Your task to perform on an android device: turn on location history Image 0: 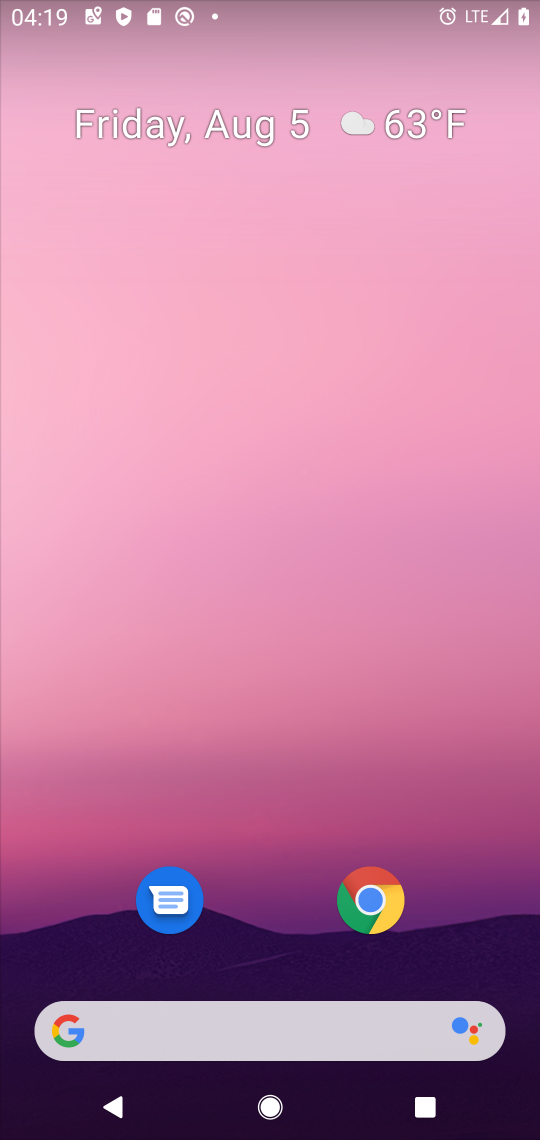
Step 0: drag from (279, 850) to (301, 2)
Your task to perform on an android device: turn on location history Image 1: 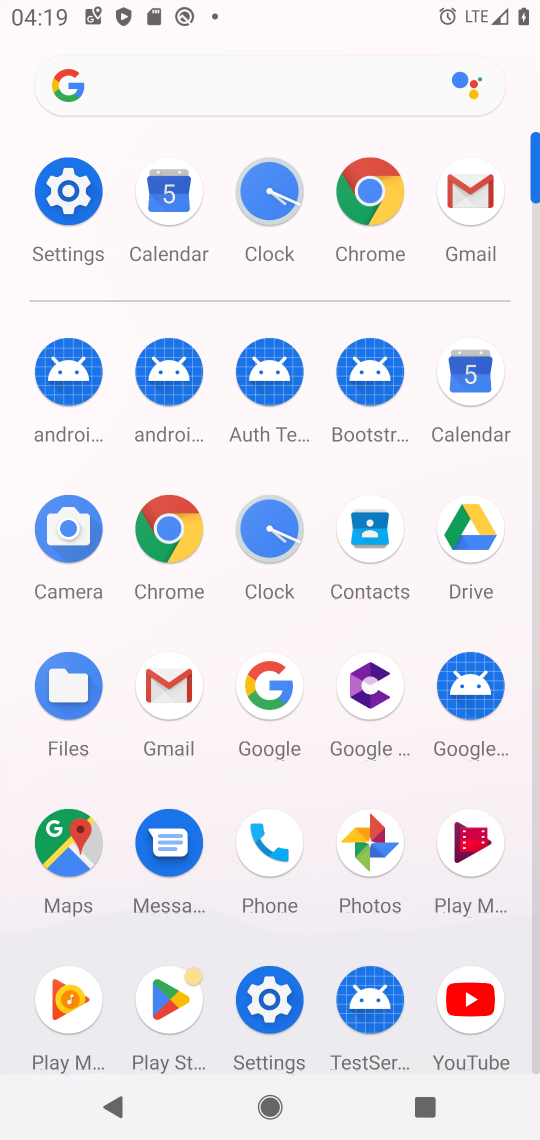
Step 1: click (74, 192)
Your task to perform on an android device: turn on location history Image 2: 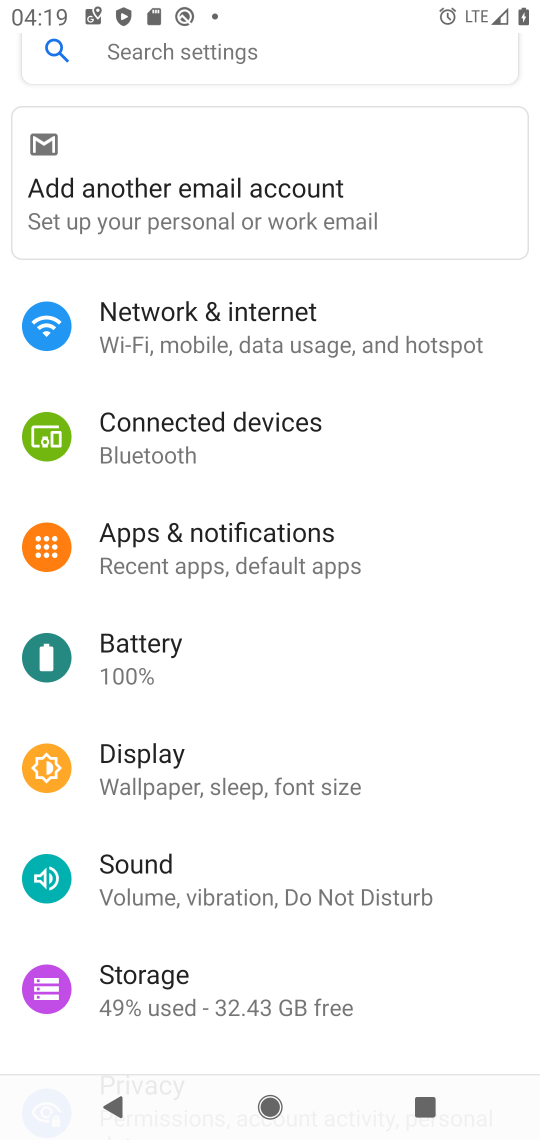
Step 2: drag from (177, 875) to (335, 114)
Your task to perform on an android device: turn on location history Image 3: 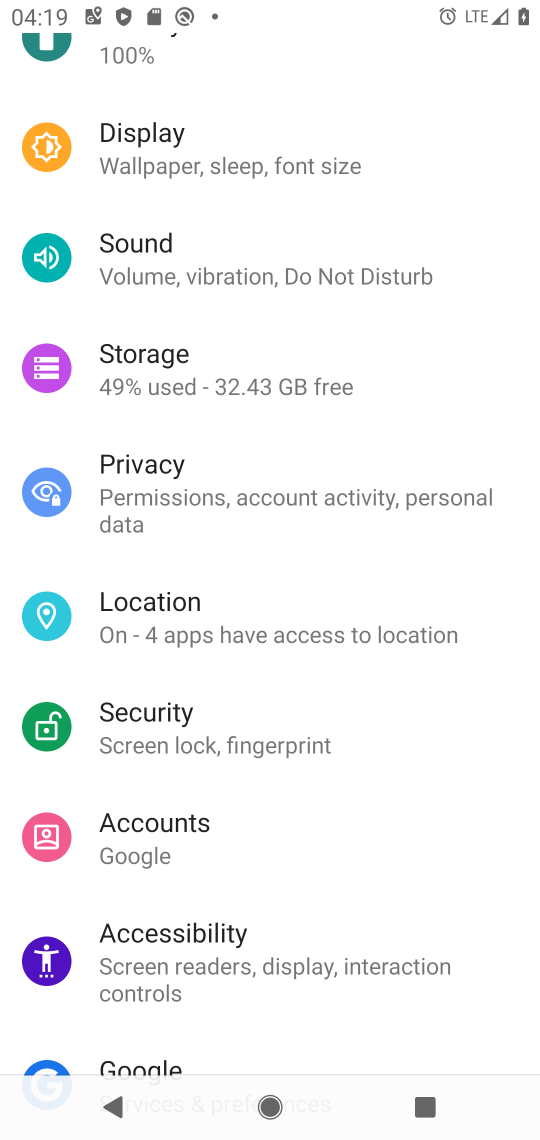
Step 3: click (146, 610)
Your task to perform on an android device: turn on location history Image 4: 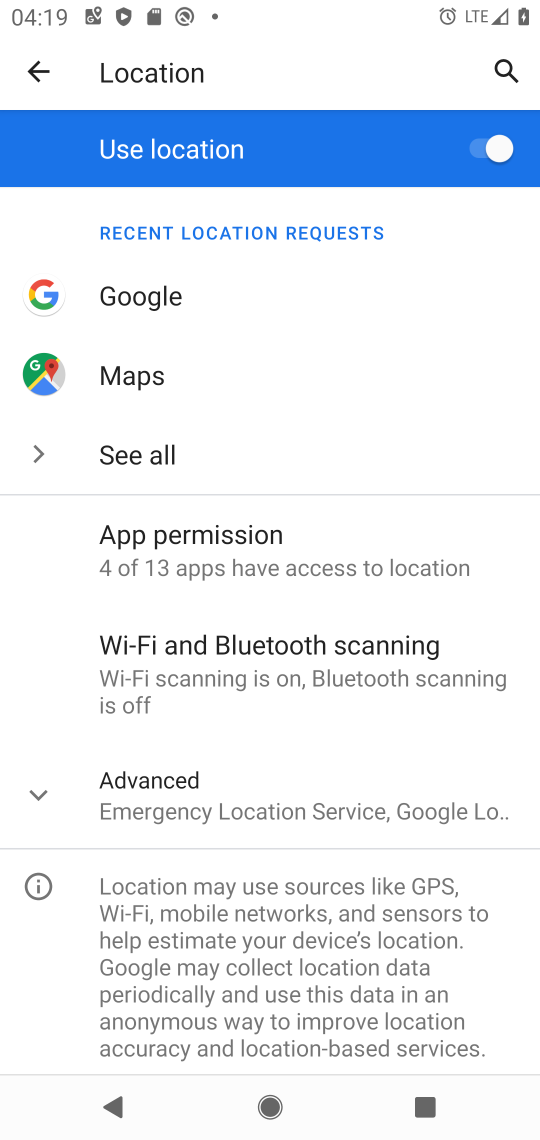
Step 4: click (199, 815)
Your task to perform on an android device: turn on location history Image 5: 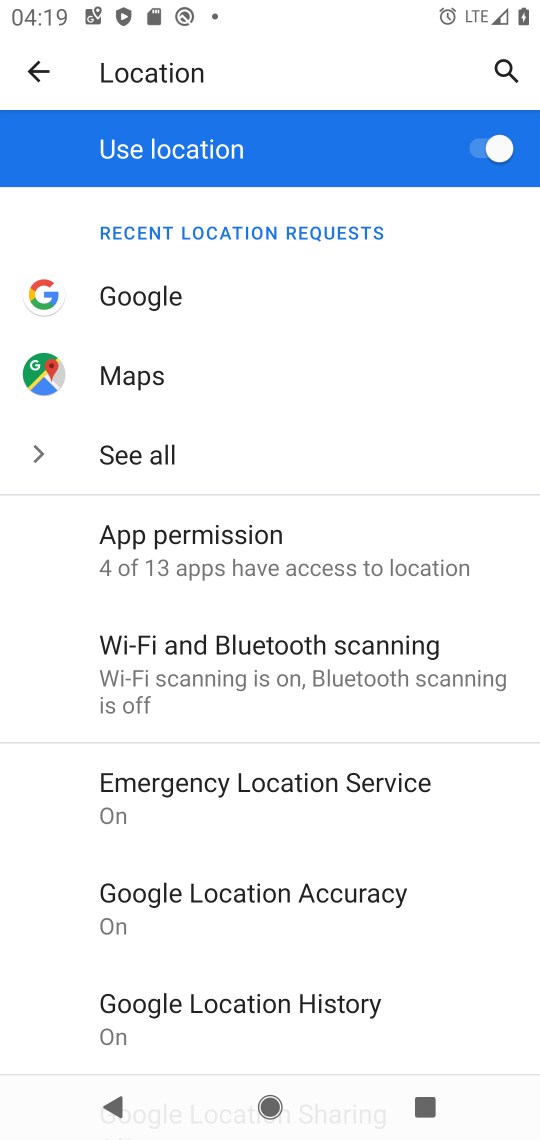
Step 5: click (243, 1004)
Your task to perform on an android device: turn on location history Image 6: 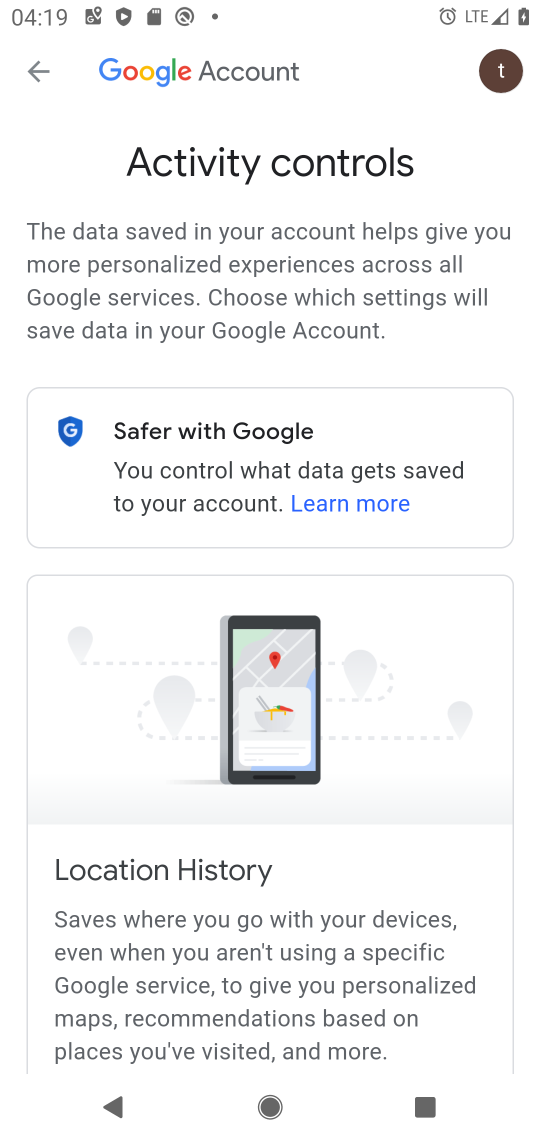
Step 6: task complete